Your task to perform on an android device: Open the calendar app, open the side menu, and click the "Day" option Image 0: 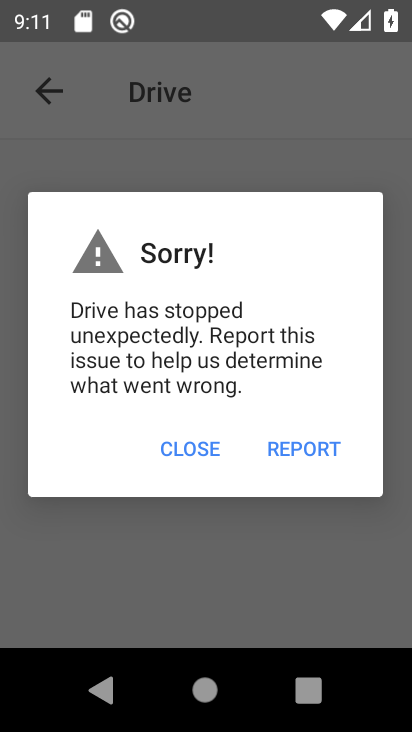
Step 0: press home button
Your task to perform on an android device: Open the calendar app, open the side menu, and click the "Day" option Image 1: 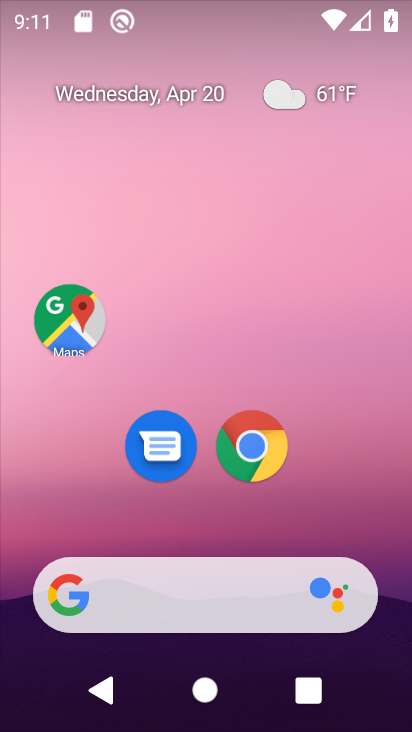
Step 1: drag from (383, 489) to (363, 69)
Your task to perform on an android device: Open the calendar app, open the side menu, and click the "Day" option Image 2: 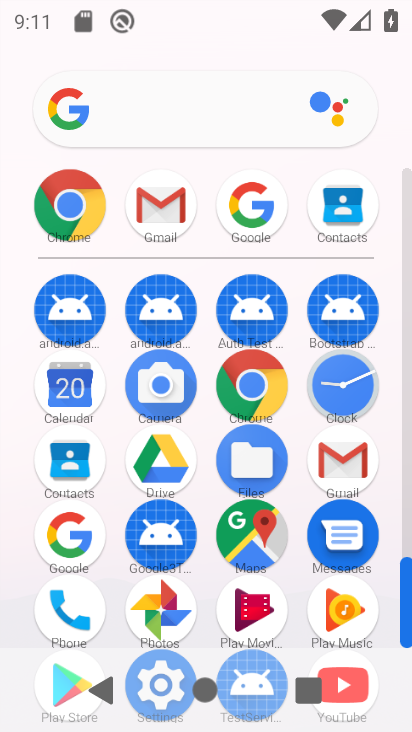
Step 2: click (65, 384)
Your task to perform on an android device: Open the calendar app, open the side menu, and click the "Day" option Image 3: 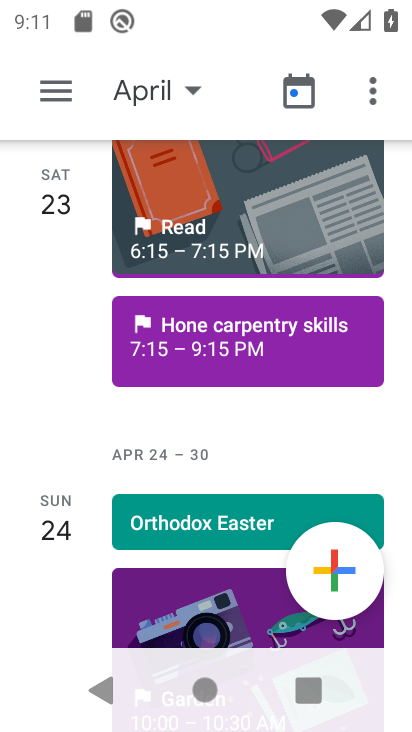
Step 3: click (56, 90)
Your task to perform on an android device: Open the calendar app, open the side menu, and click the "Day" option Image 4: 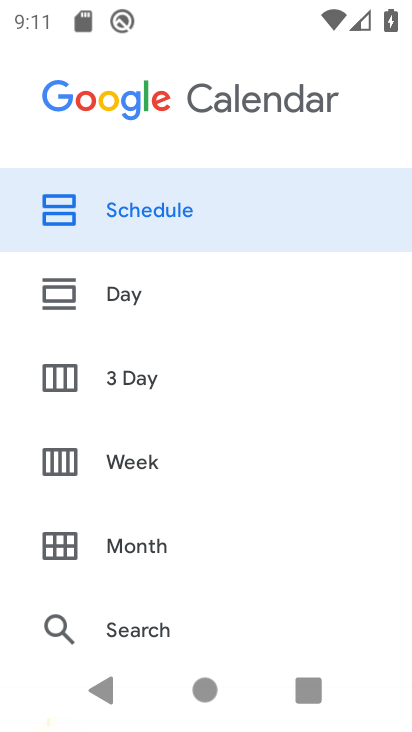
Step 4: click (118, 295)
Your task to perform on an android device: Open the calendar app, open the side menu, and click the "Day" option Image 5: 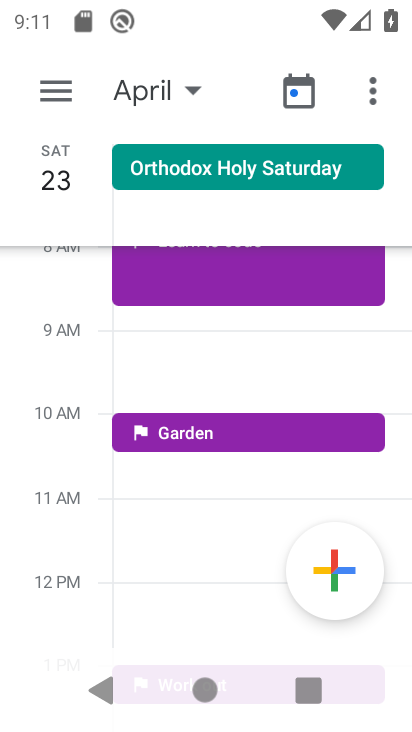
Step 5: task complete